Your task to perform on an android device: check android version Image 0: 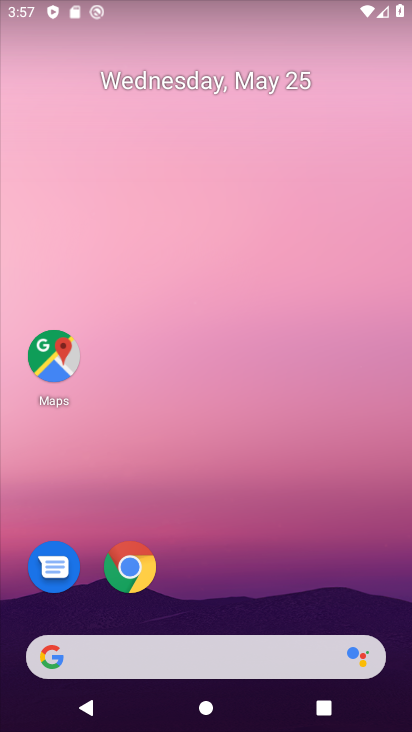
Step 0: drag from (209, 638) to (292, 206)
Your task to perform on an android device: check android version Image 1: 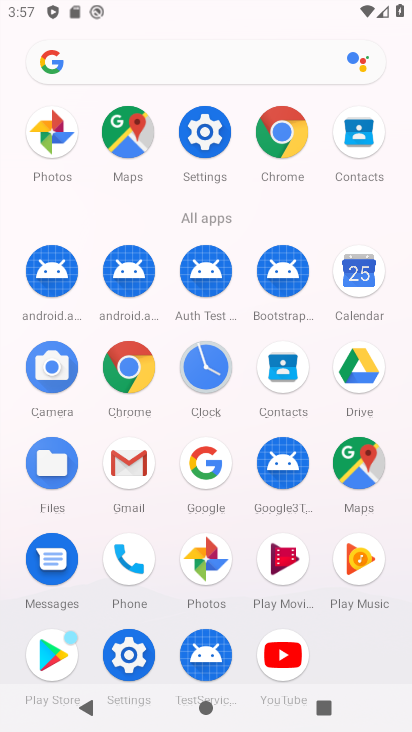
Step 1: click (113, 661)
Your task to perform on an android device: check android version Image 2: 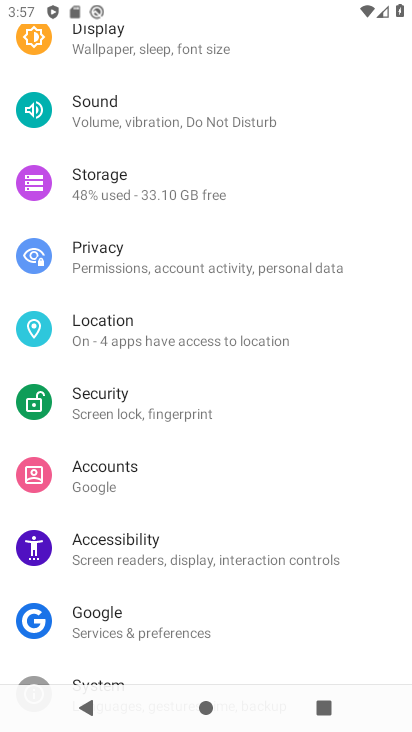
Step 2: drag from (215, 643) to (388, 69)
Your task to perform on an android device: check android version Image 3: 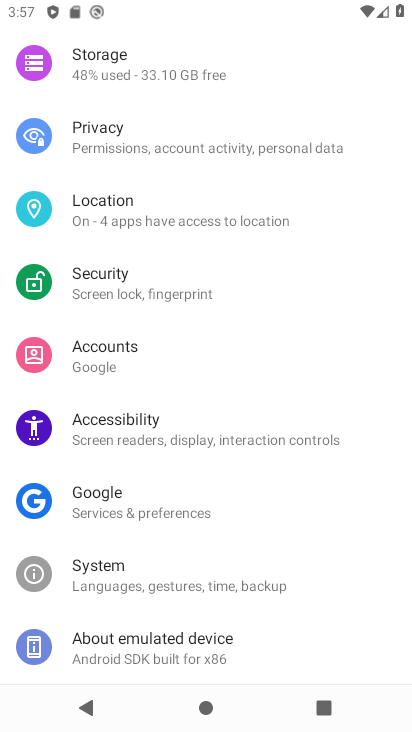
Step 3: click (170, 636)
Your task to perform on an android device: check android version Image 4: 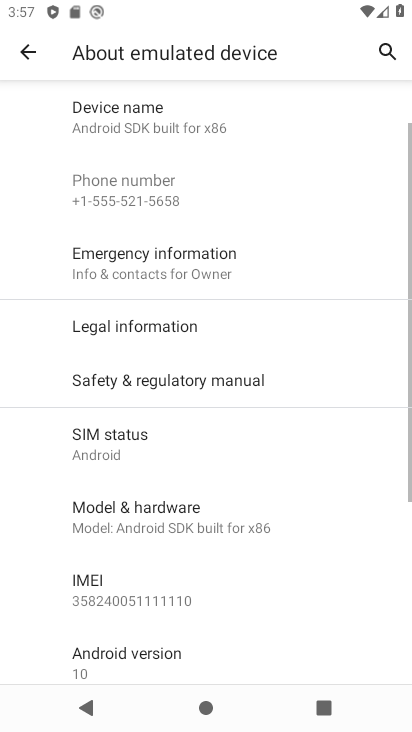
Step 4: drag from (119, 614) to (183, 328)
Your task to perform on an android device: check android version Image 5: 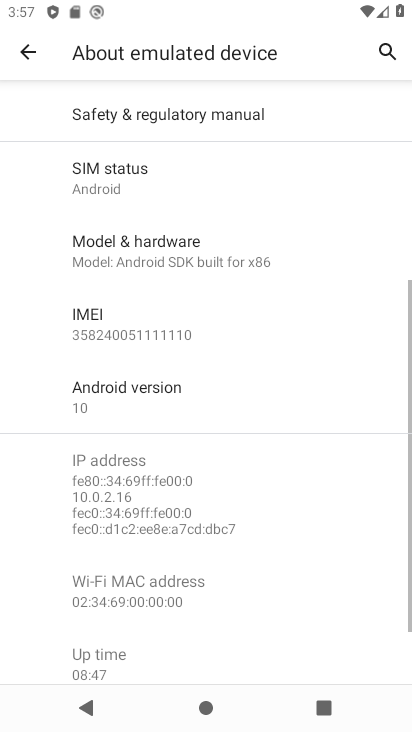
Step 5: click (154, 402)
Your task to perform on an android device: check android version Image 6: 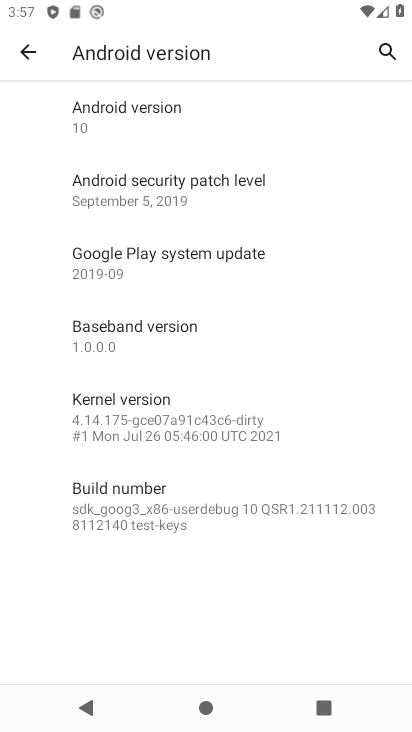
Step 6: task complete